Your task to perform on an android device: Open Maps and search for coffee Image 0: 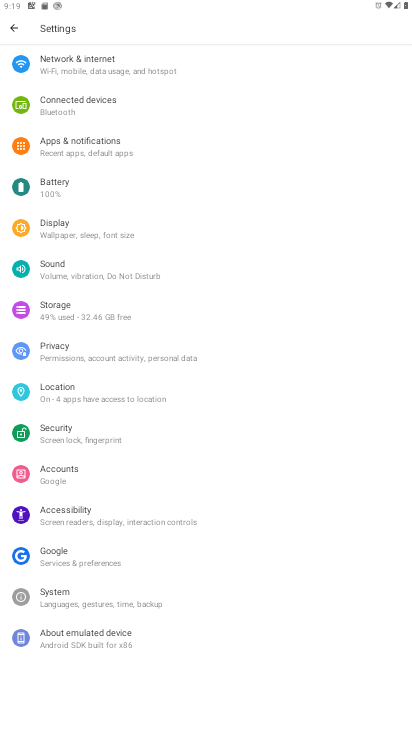
Step 0: press home button
Your task to perform on an android device: Open Maps and search for coffee Image 1: 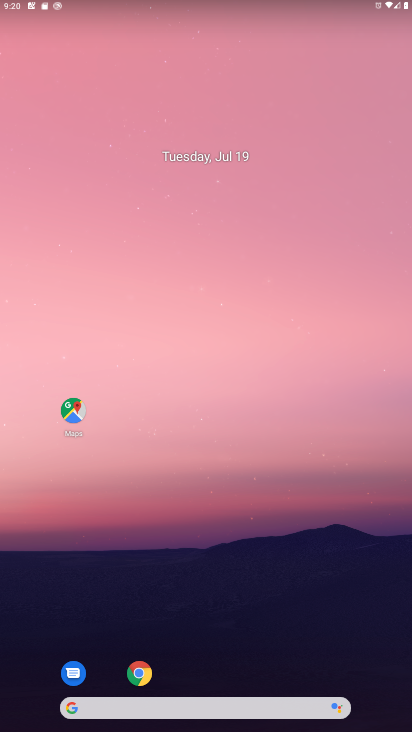
Step 1: click (73, 412)
Your task to perform on an android device: Open Maps and search for coffee Image 2: 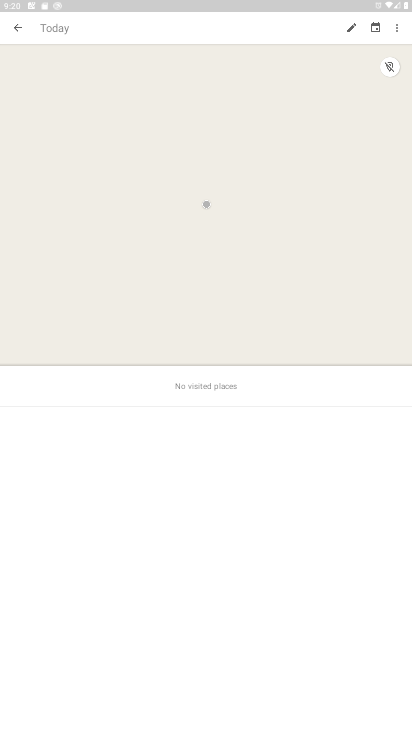
Step 2: press back button
Your task to perform on an android device: Open Maps and search for coffee Image 3: 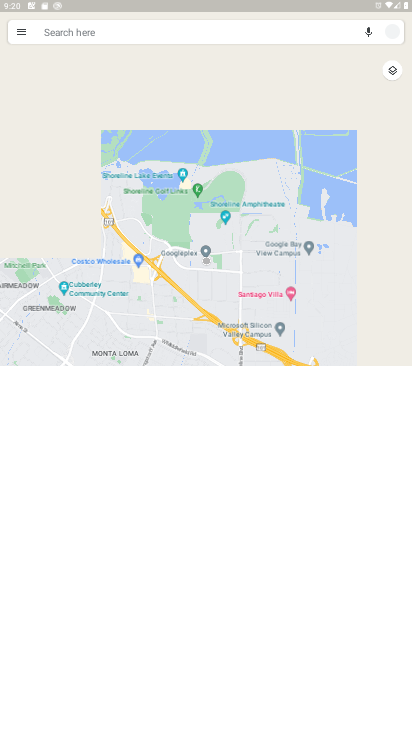
Step 3: press back button
Your task to perform on an android device: Open Maps and search for coffee Image 4: 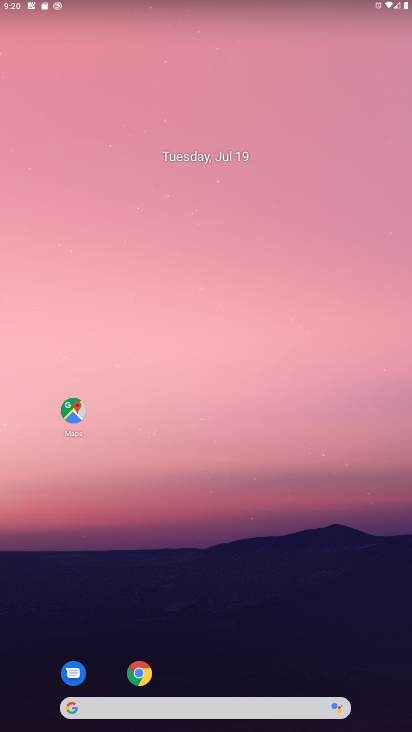
Step 4: click (71, 407)
Your task to perform on an android device: Open Maps and search for coffee Image 5: 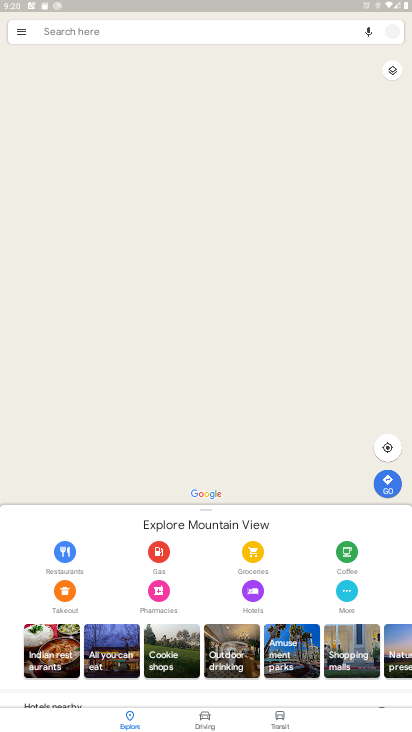
Step 5: click (95, 26)
Your task to perform on an android device: Open Maps and search for coffee Image 6: 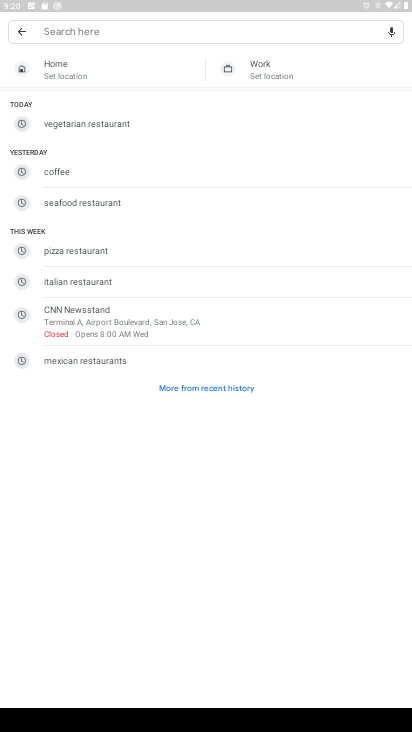
Step 6: type "coffee"
Your task to perform on an android device: Open Maps and search for coffee Image 7: 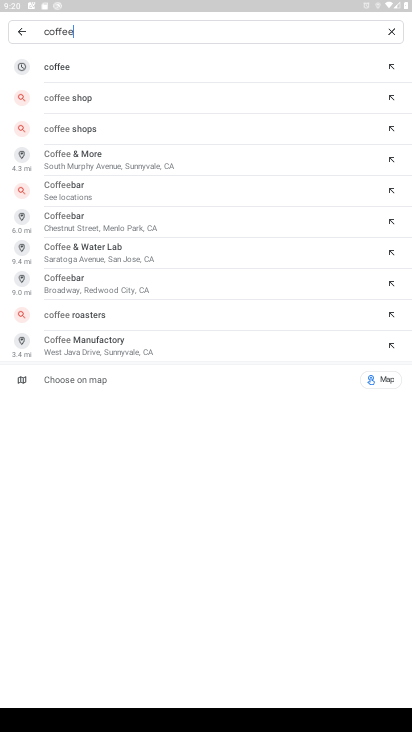
Step 7: click (66, 67)
Your task to perform on an android device: Open Maps and search for coffee Image 8: 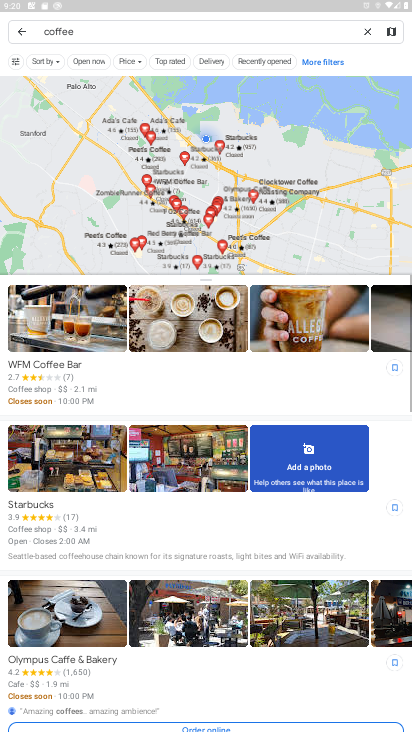
Step 8: task complete